Your task to perform on an android device: Go to settings Image 0: 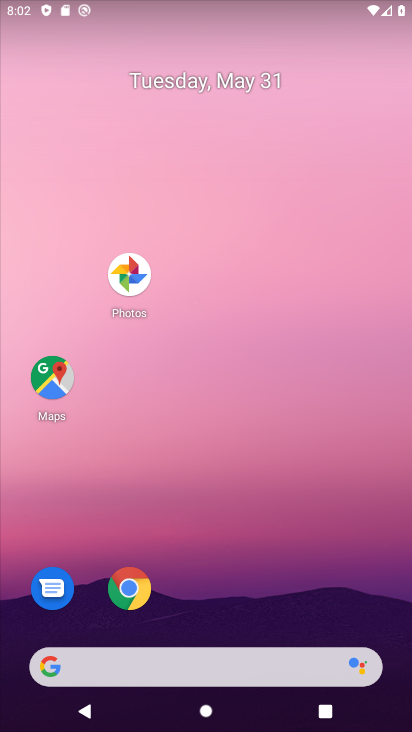
Step 0: drag from (264, 625) to (283, 71)
Your task to perform on an android device: Go to settings Image 1: 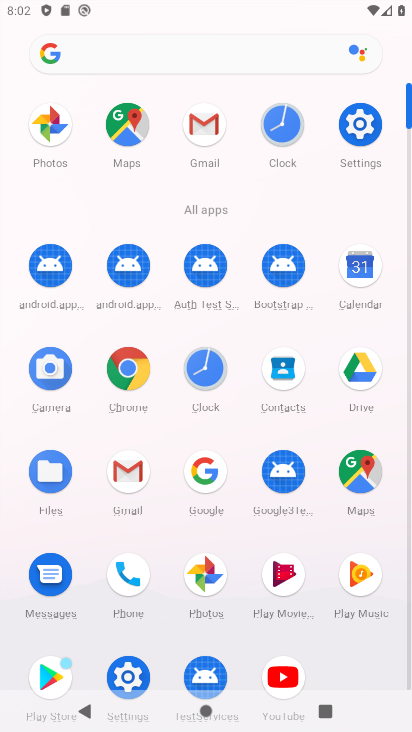
Step 1: drag from (359, 120) to (43, 199)
Your task to perform on an android device: Go to settings Image 2: 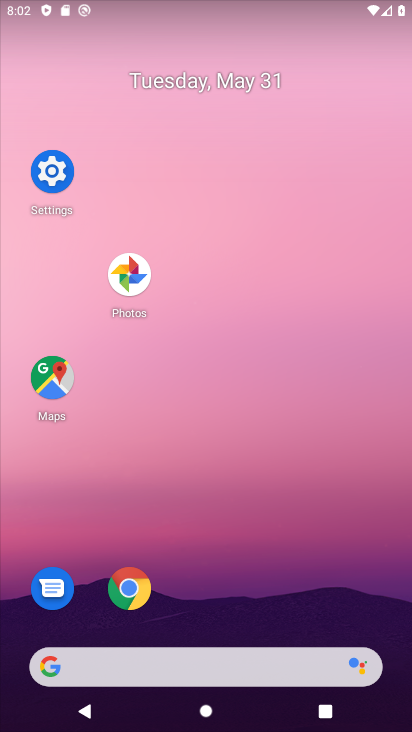
Step 2: click (50, 175)
Your task to perform on an android device: Go to settings Image 3: 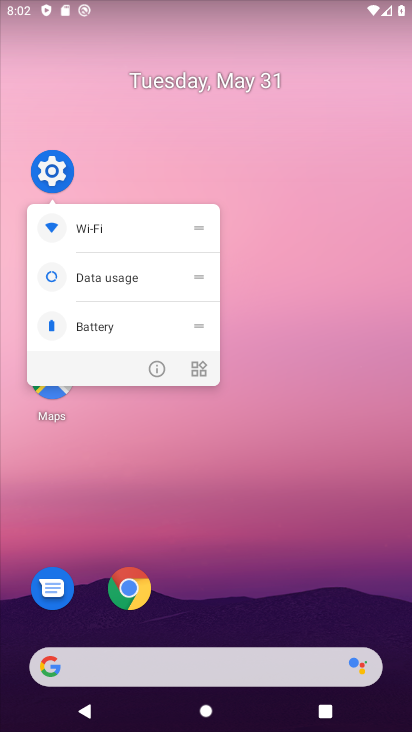
Step 3: click (67, 188)
Your task to perform on an android device: Go to settings Image 4: 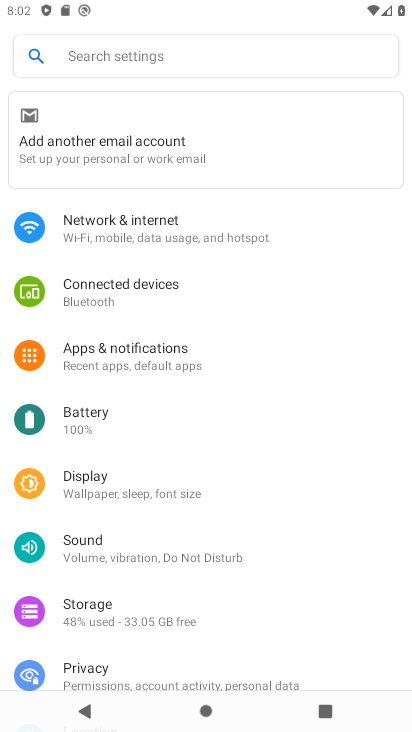
Step 4: task complete